Your task to perform on an android device: turn on improve location accuracy Image 0: 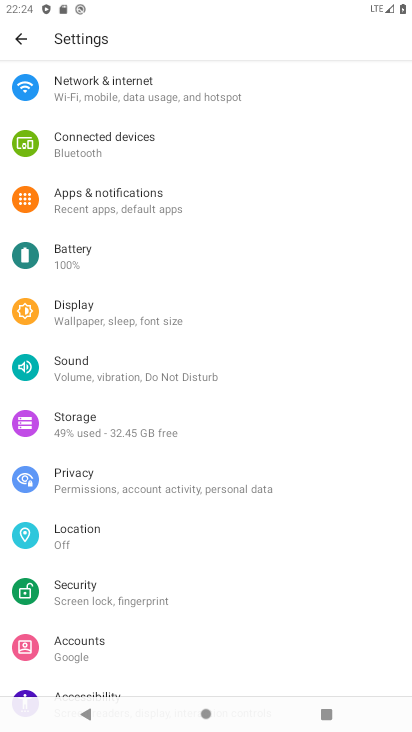
Step 0: click (167, 535)
Your task to perform on an android device: turn on improve location accuracy Image 1: 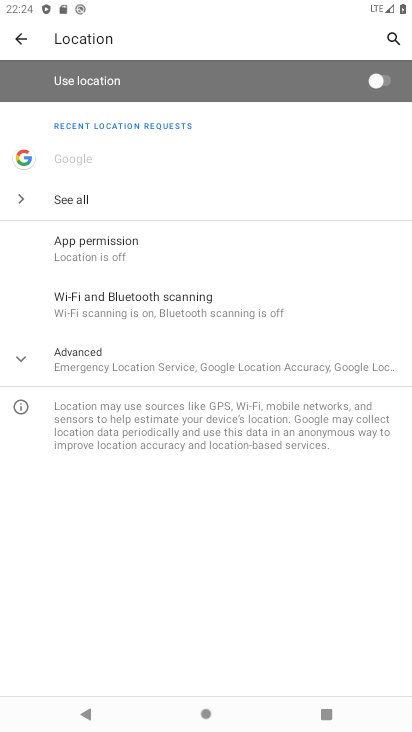
Step 1: click (133, 360)
Your task to perform on an android device: turn on improve location accuracy Image 2: 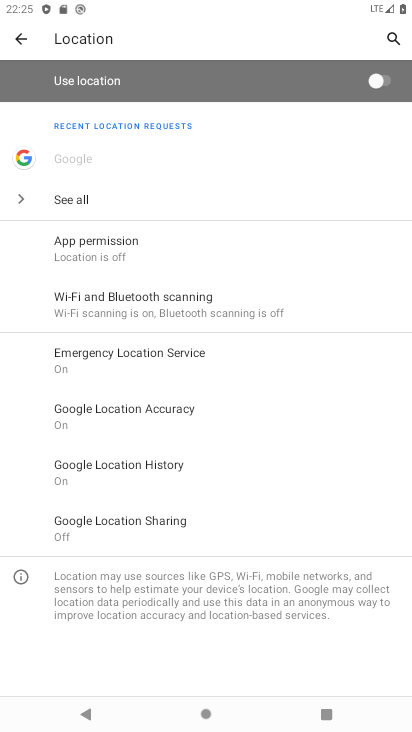
Step 2: click (163, 405)
Your task to perform on an android device: turn on improve location accuracy Image 3: 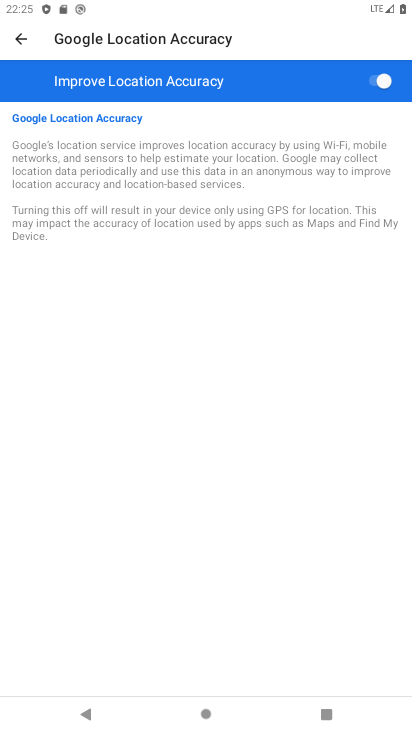
Step 3: task complete